Your task to perform on an android device: Show me the alarms in the clock app Image 0: 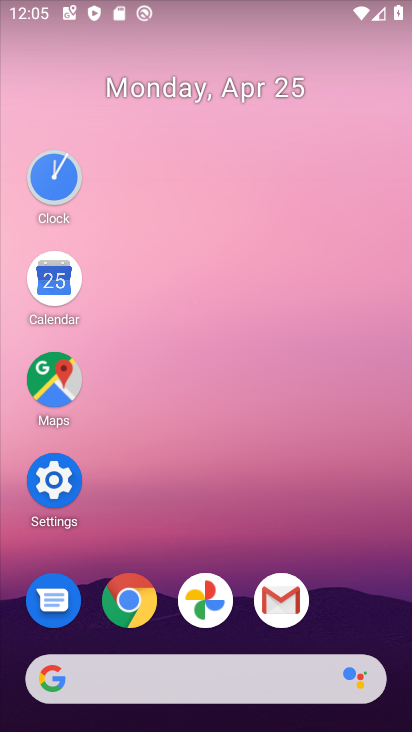
Step 0: click (52, 190)
Your task to perform on an android device: Show me the alarms in the clock app Image 1: 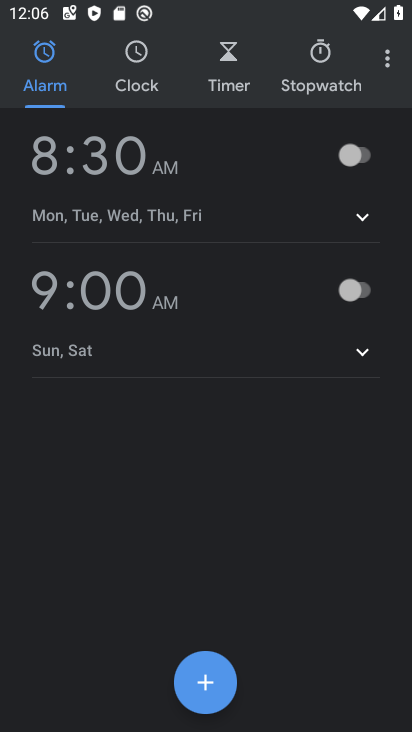
Step 1: task complete